Your task to perform on an android device: Open ESPN.com Image 0: 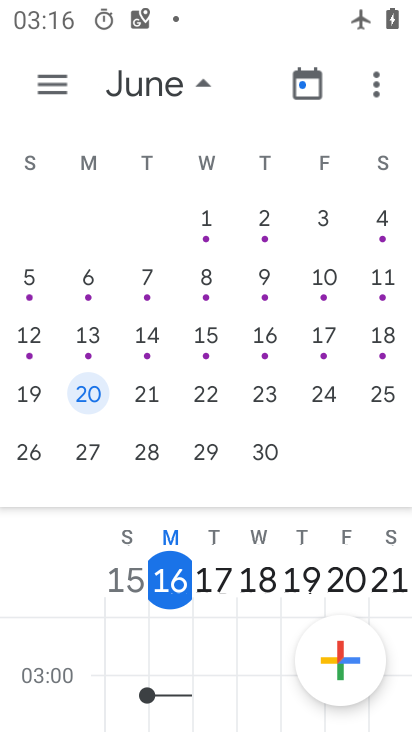
Step 0: press home button
Your task to perform on an android device: Open ESPN.com Image 1: 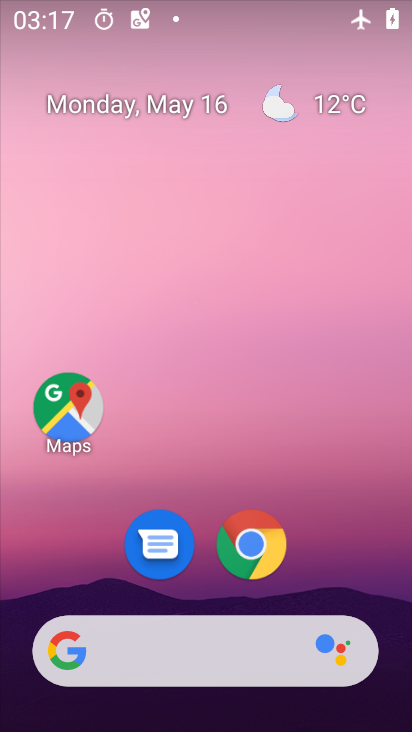
Step 1: click (251, 544)
Your task to perform on an android device: Open ESPN.com Image 2: 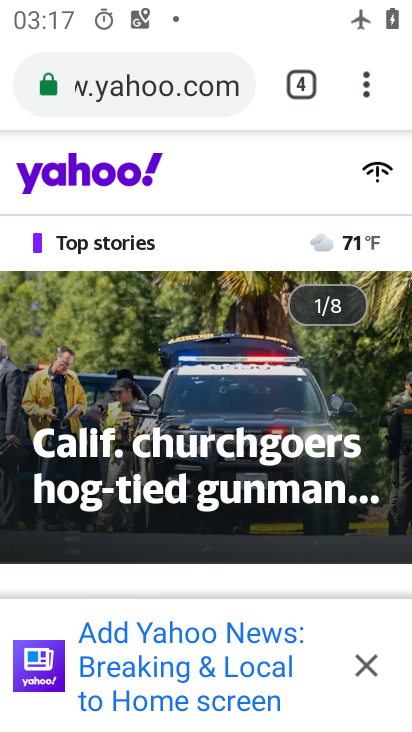
Step 2: click (369, 89)
Your task to perform on an android device: Open ESPN.com Image 3: 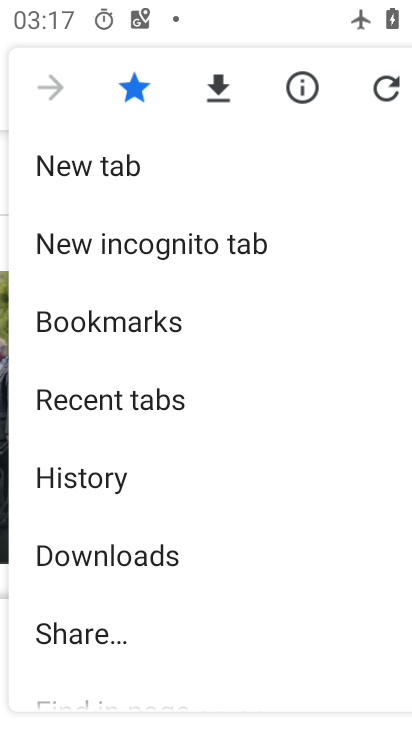
Step 3: click (89, 150)
Your task to perform on an android device: Open ESPN.com Image 4: 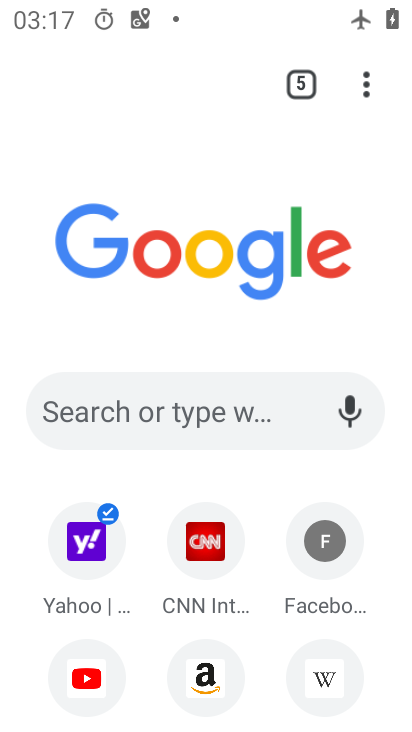
Step 4: click (187, 412)
Your task to perform on an android device: Open ESPN.com Image 5: 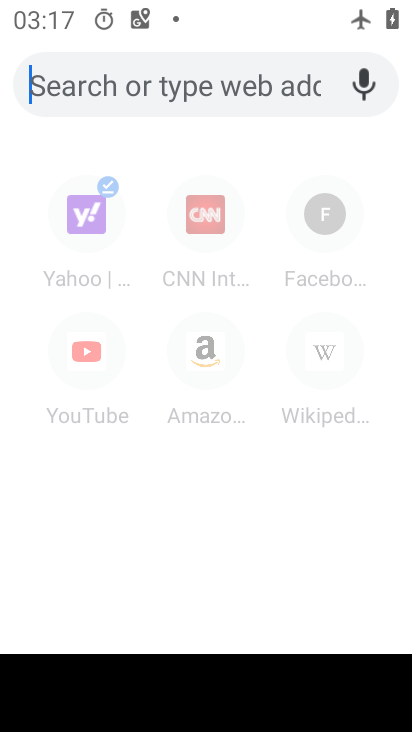
Step 5: type "ESPN.com"
Your task to perform on an android device: Open ESPN.com Image 6: 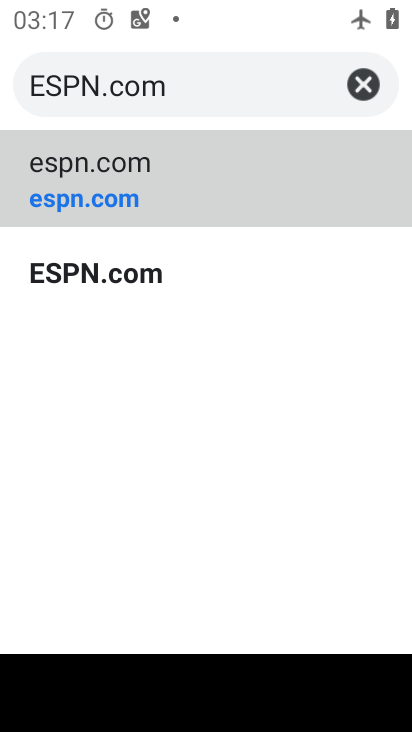
Step 6: click (84, 184)
Your task to perform on an android device: Open ESPN.com Image 7: 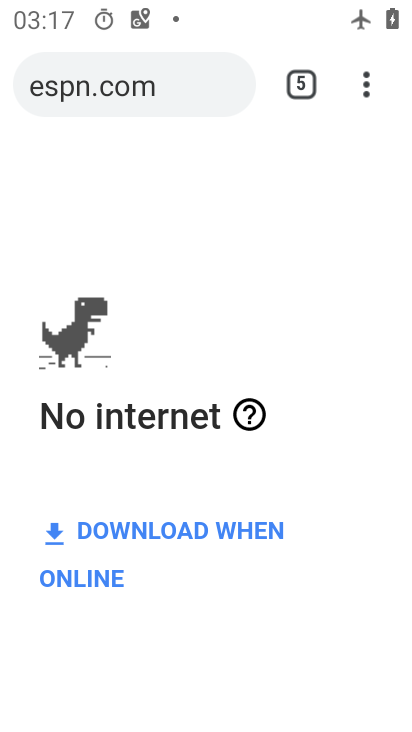
Step 7: task complete